Your task to perform on an android device: clear history in the chrome app Image 0: 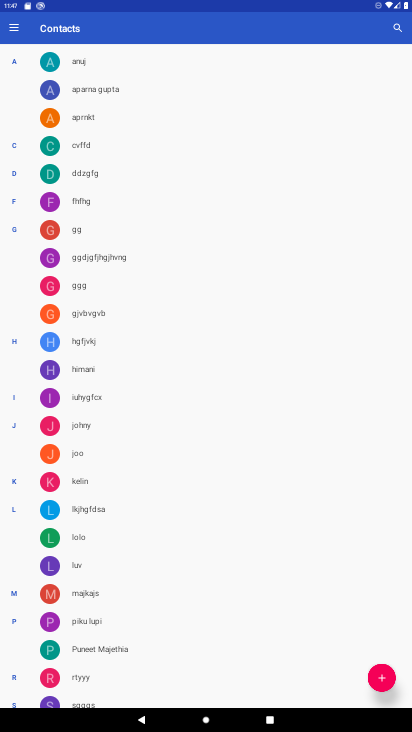
Step 0: press home button
Your task to perform on an android device: clear history in the chrome app Image 1: 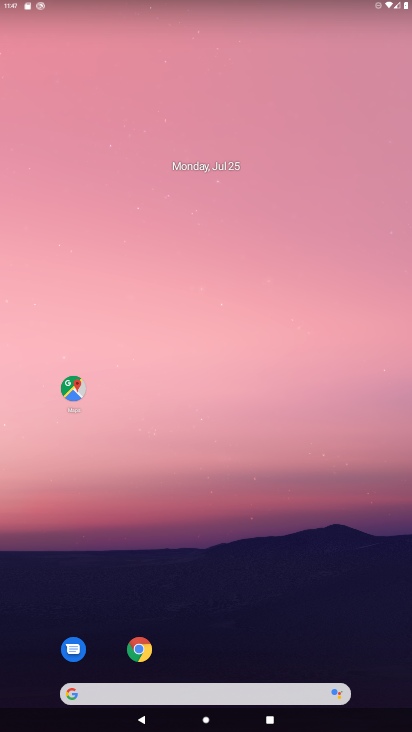
Step 1: click (140, 653)
Your task to perform on an android device: clear history in the chrome app Image 2: 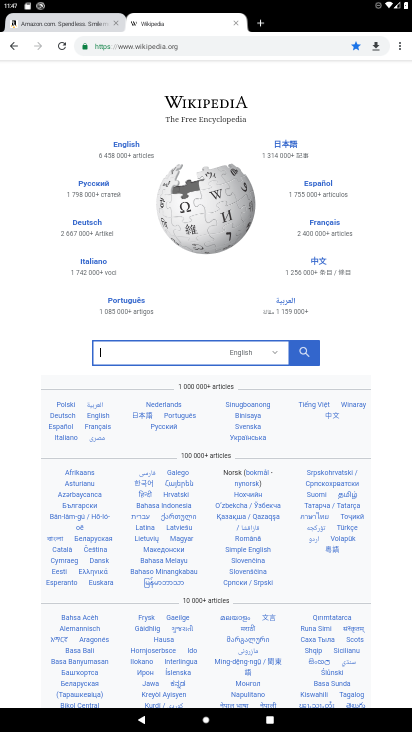
Step 2: click (399, 48)
Your task to perform on an android device: clear history in the chrome app Image 3: 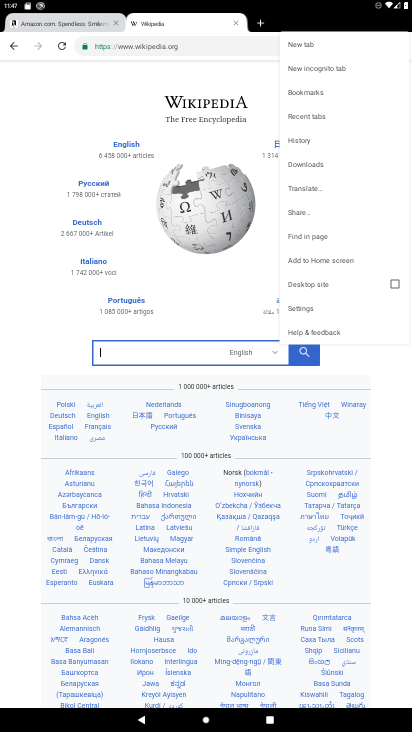
Step 3: click (295, 137)
Your task to perform on an android device: clear history in the chrome app Image 4: 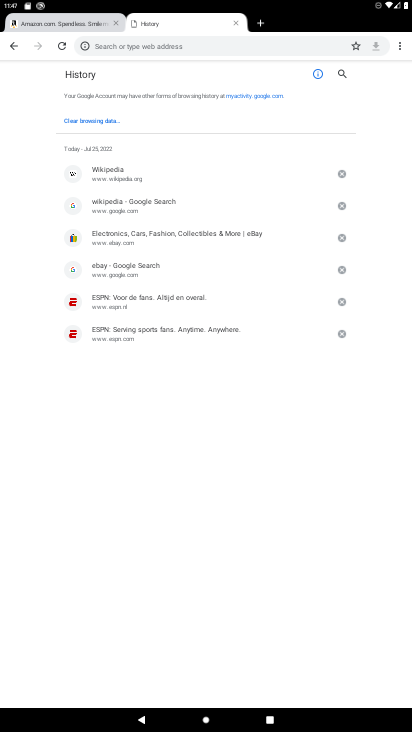
Step 4: click (79, 119)
Your task to perform on an android device: clear history in the chrome app Image 5: 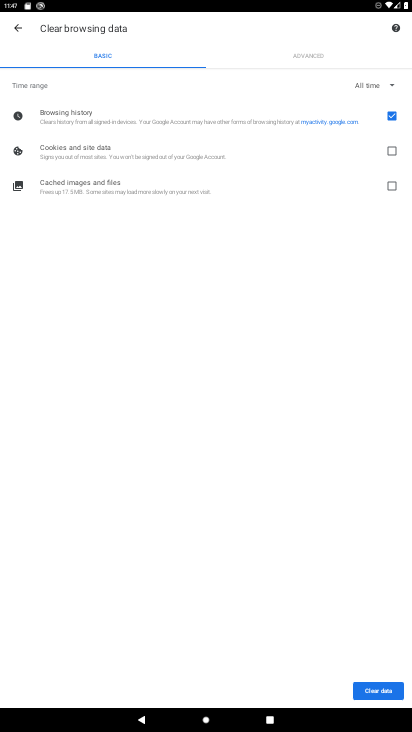
Step 5: click (378, 694)
Your task to perform on an android device: clear history in the chrome app Image 6: 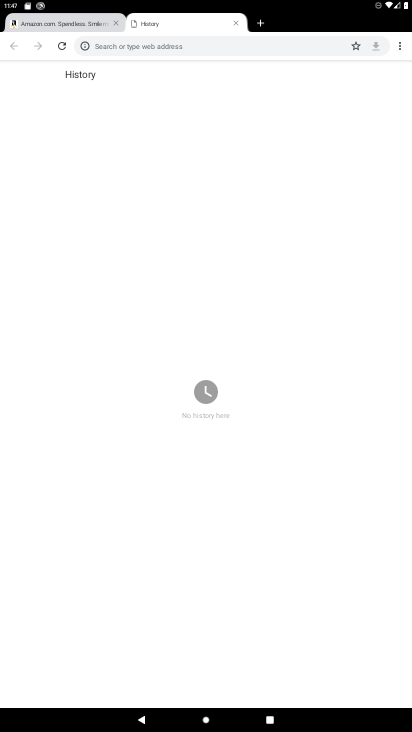
Step 6: task complete